Your task to perform on an android device: see creations saved in the google photos Image 0: 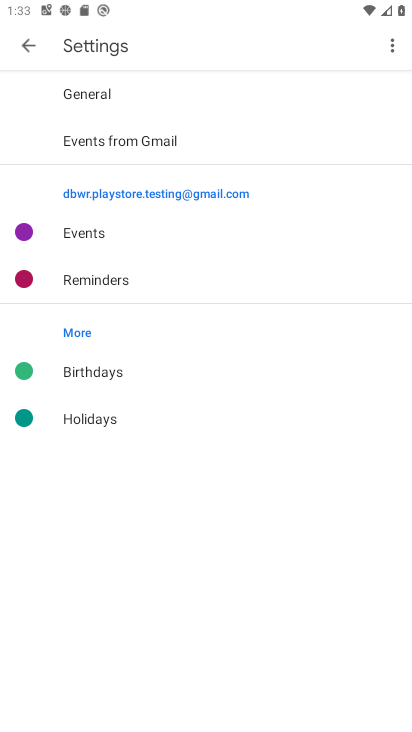
Step 0: press home button
Your task to perform on an android device: see creations saved in the google photos Image 1: 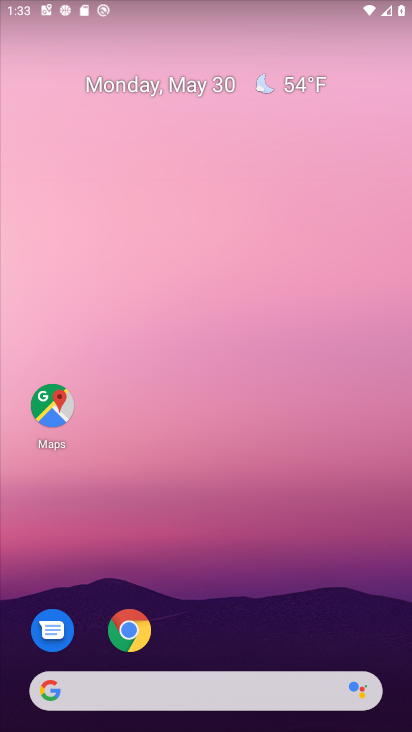
Step 1: drag from (151, 694) to (339, 116)
Your task to perform on an android device: see creations saved in the google photos Image 2: 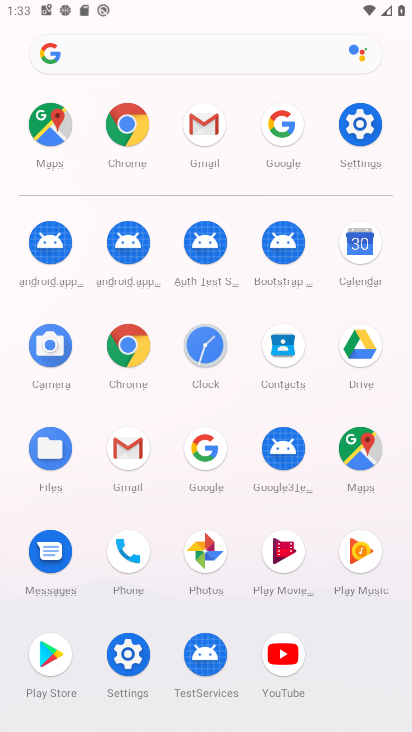
Step 2: click (211, 552)
Your task to perform on an android device: see creations saved in the google photos Image 3: 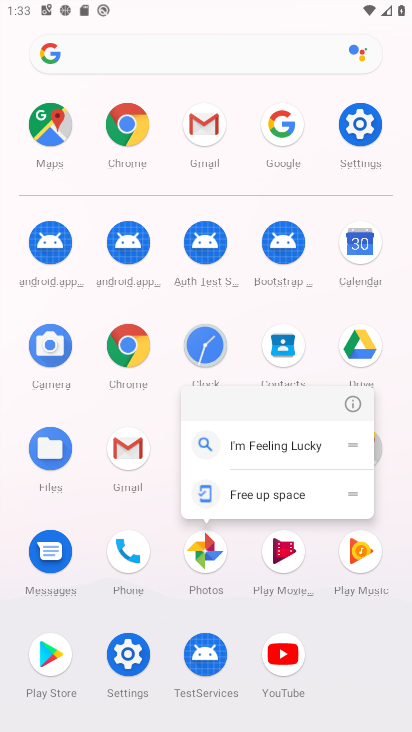
Step 3: click (211, 552)
Your task to perform on an android device: see creations saved in the google photos Image 4: 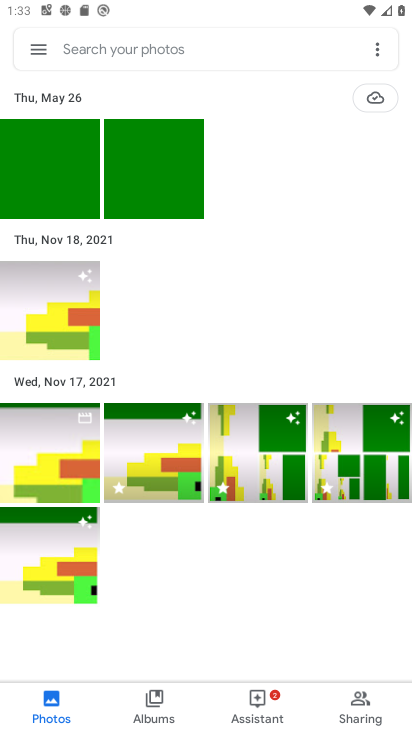
Step 4: click (39, 46)
Your task to perform on an android device: see creations saved in the google photos Image 5: 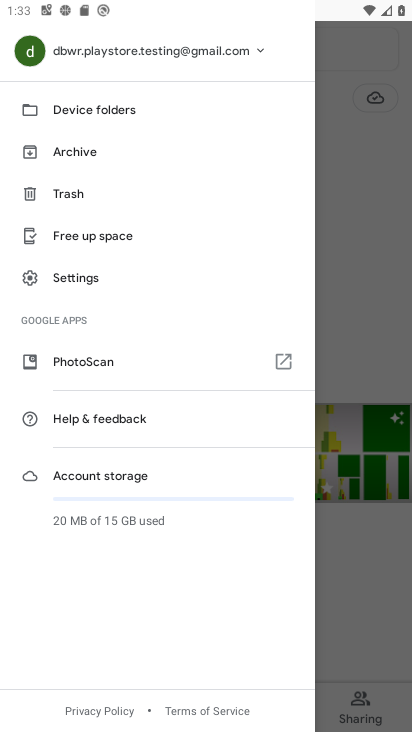
Step 5: click (377, 318)
Your task to perform on an android device: see creations saved in the google photos Image 6: 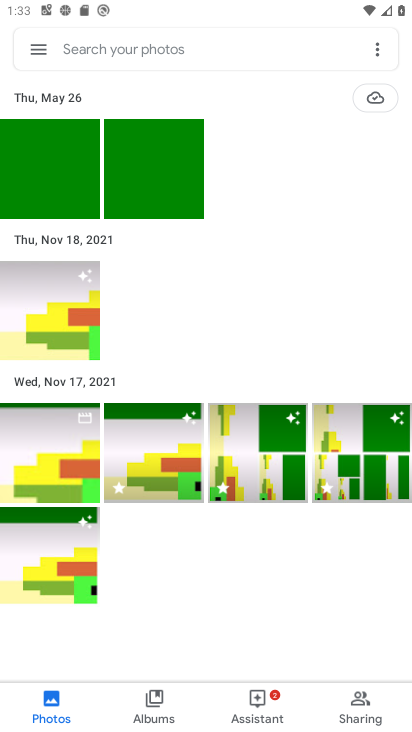
Step 6: click (154, 712)
Your task to perform on an android device: see creations saved in the google photos Image 7: 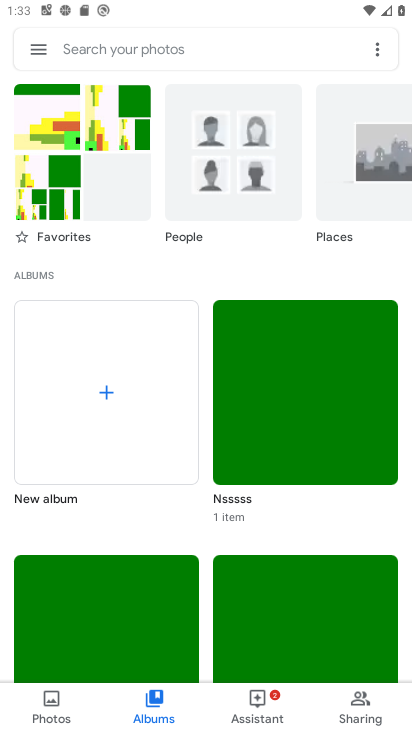
Step 7: click (188, 39)
Your task to perform on an android device: see creations saved in the google photos Image 8: 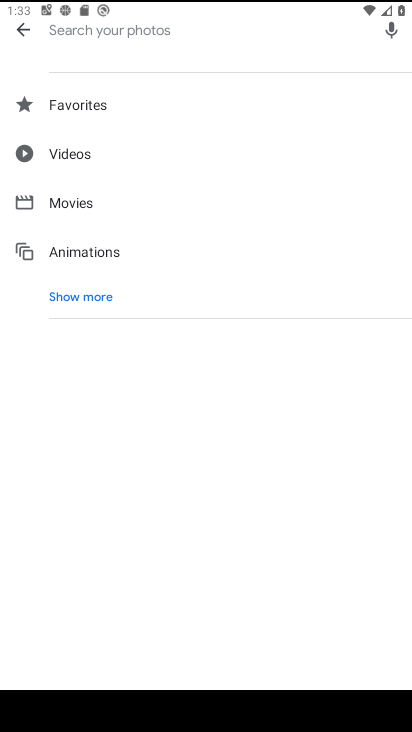
Step 8: click (86, 297)
Your task to perform on an android device: see creations saved in the google photos Image 9: 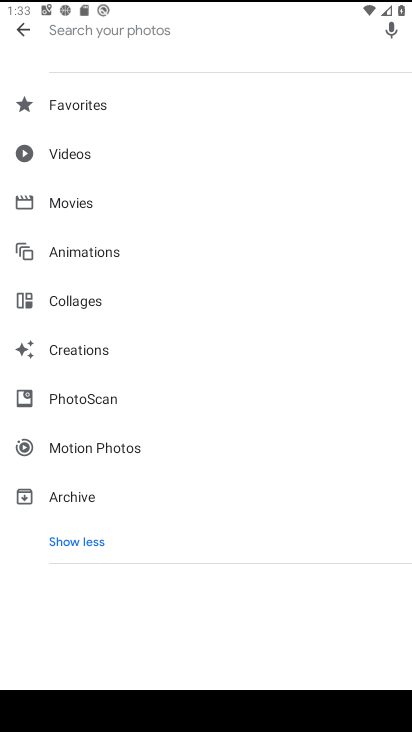
Step 9: click (87, 350)
Your task to perform on an android device: see creations saved in the google photos Image 10: 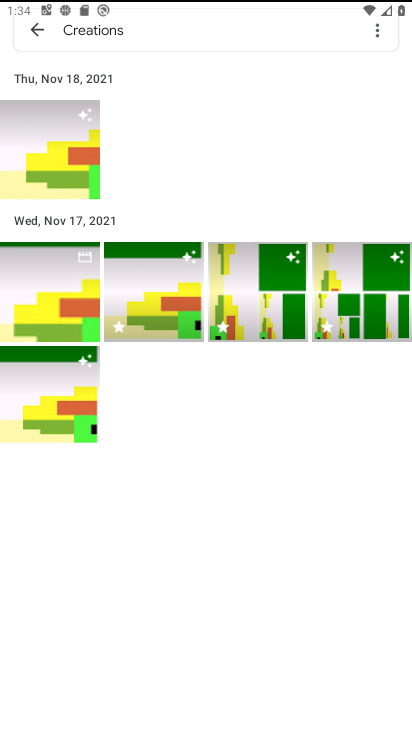
Step 10: task complete